Your task to perform on an android device: How much does a 3 bedroom apartment rent for in Philadelphia? Image 0: 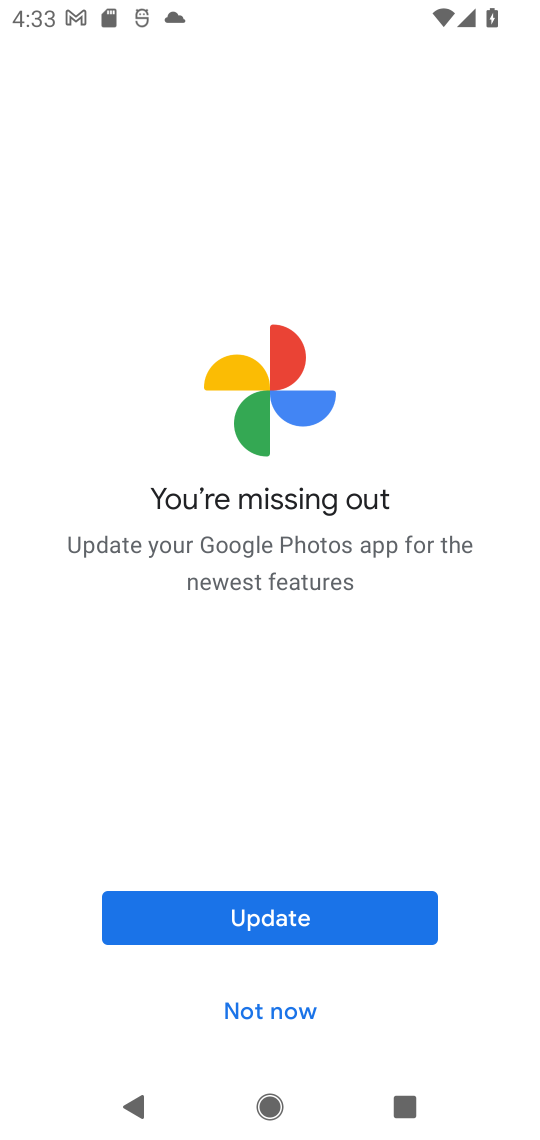
Step 0: press home button
Your task to perform on an android device: How much does a 3 bedroom apartment rent for in Philadelphia? Image 1: 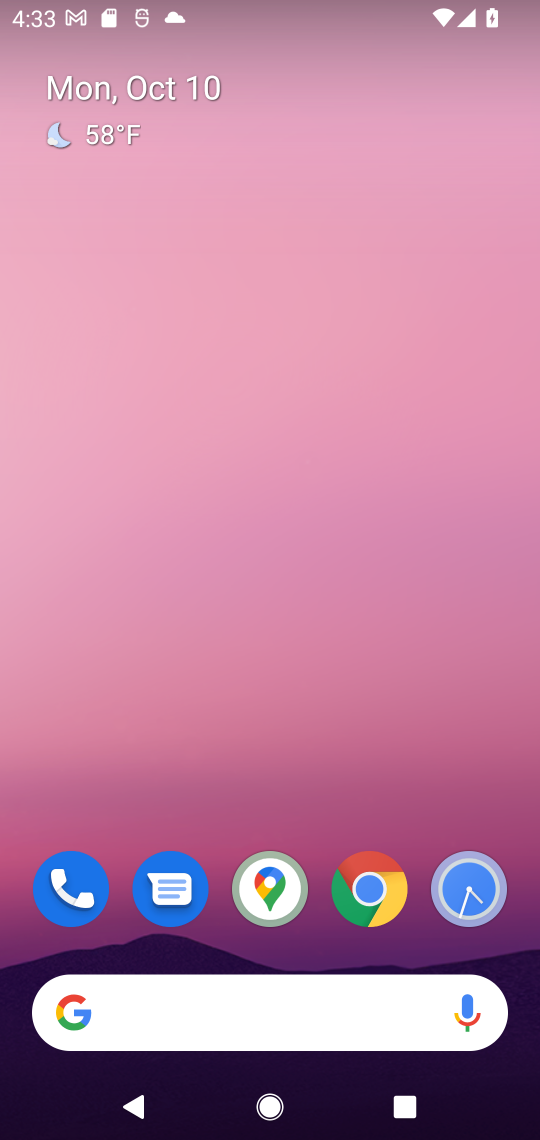
Step 1: click (373, 905)
Your task to perform on an android device: How much does a 3 bedroom apartment rent for in Philadelphia? Image 2: 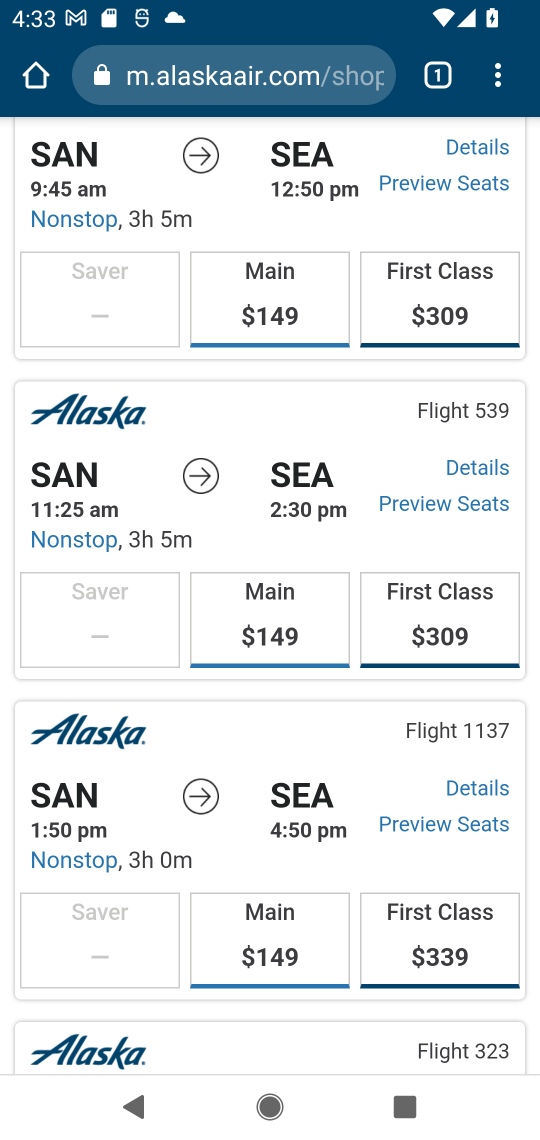
Step 2: click (292, 60)
Your task to perform on an android device: How much does a 3 bedroom apartment rent for in Philadelphia? Image 3: 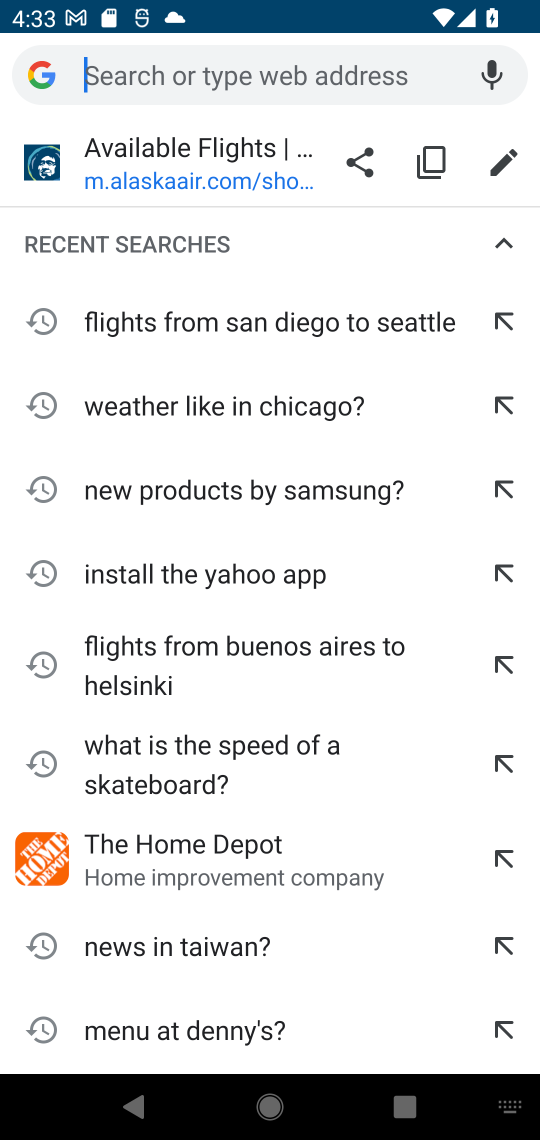
Step 3: type "How much does a 3 bedroom apartment rent for in Philadelphia?"
Your task to perform on an android device: How much does a 3 bedroom apartment rent for in Philadelphia? Image 4: 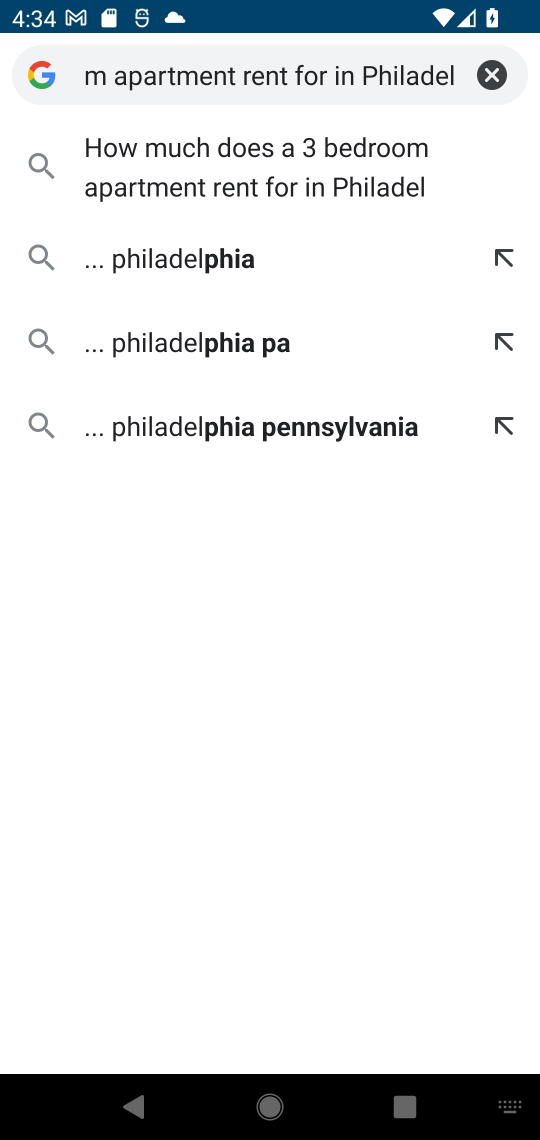
Step 4: click (251, 132)
Your task to perform on an android device: How much does a 3 bedroom apartment rent for in Philadelphia? Image 5: 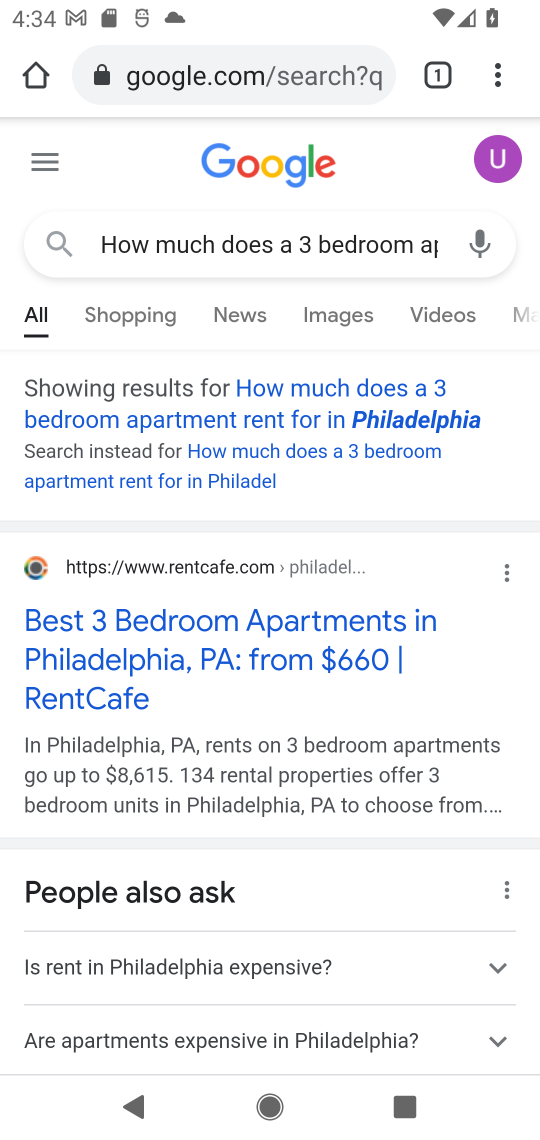
Step 5: click (198, 645)
Your task to perform on an android device: How much does a 3 bedroom apartment rent for in Philadelphia? Image 6: 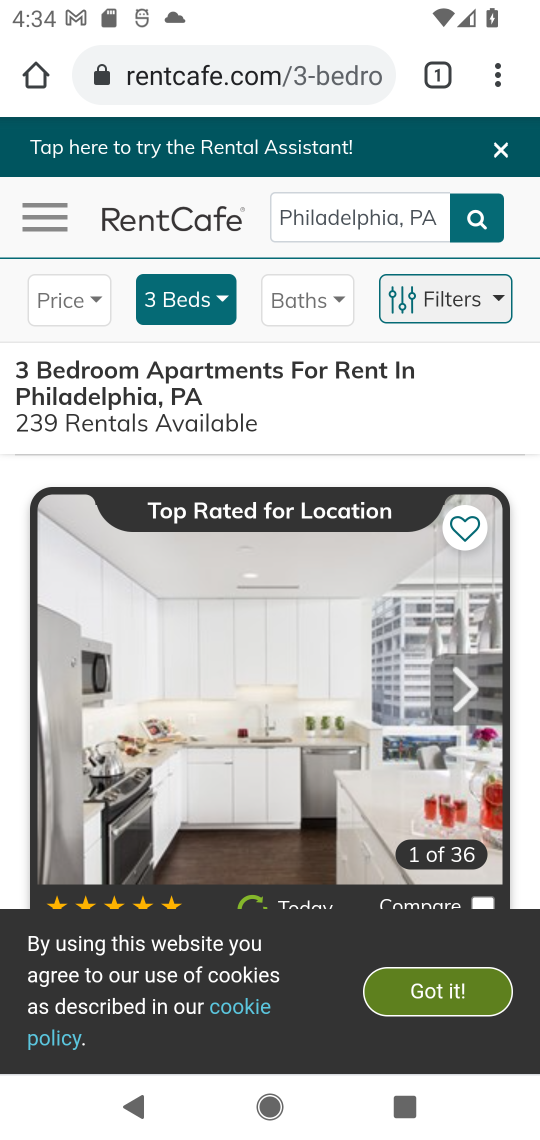
Step 6: click (433, 1004)
Your task to perform on an android device: How much does a 3 bedroom apartment rent for in Philadelphia? Image 7: 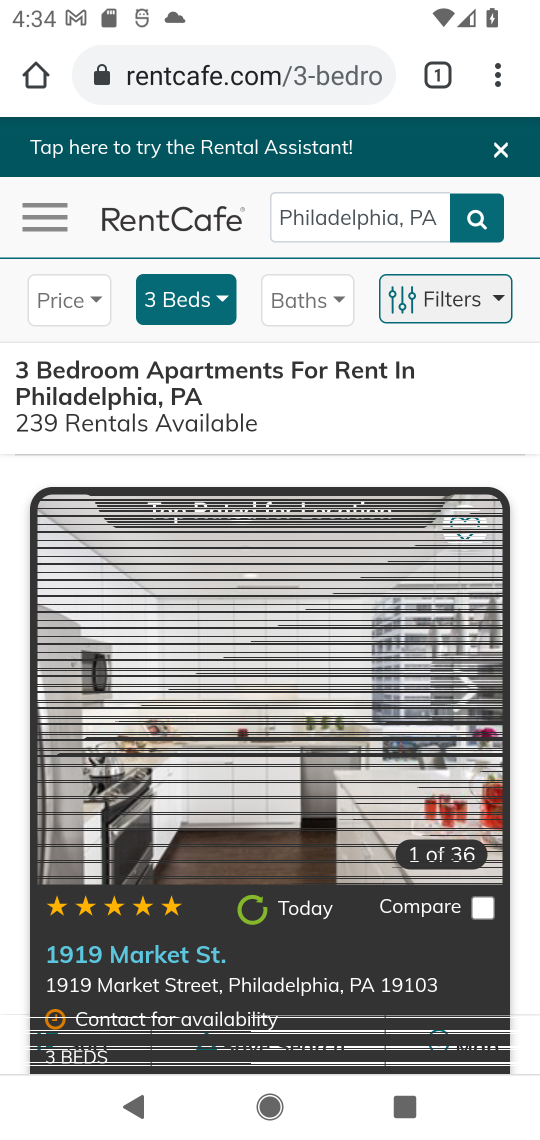
Step 7: task complete